Your task to perform on an android device: check google app version Image 0: 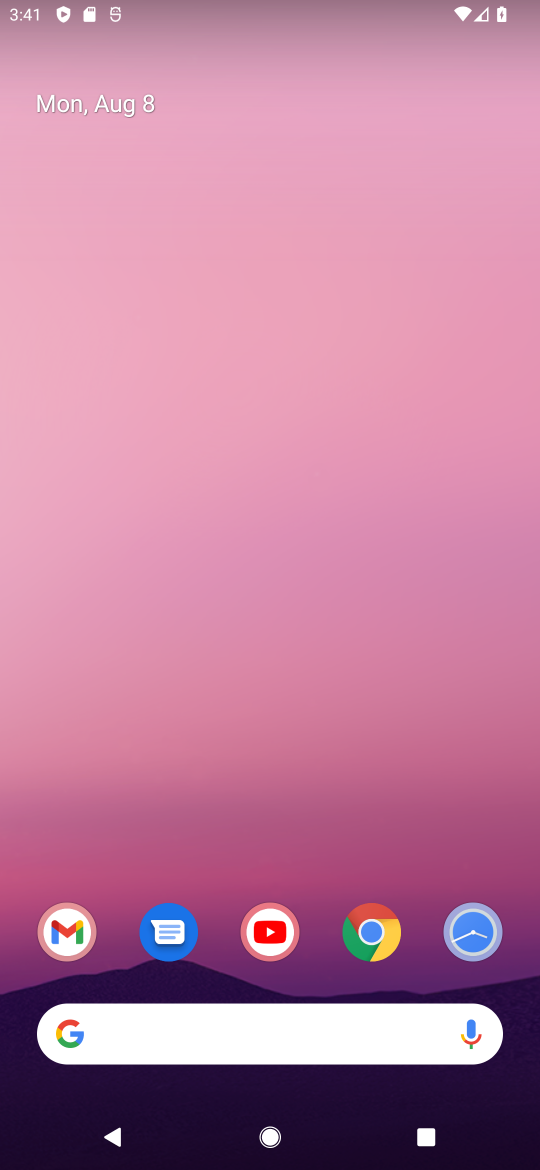
Step 0: drag from (210, 855) to (243, 365)
Your task to perform on an android device: check google app version Image 1: 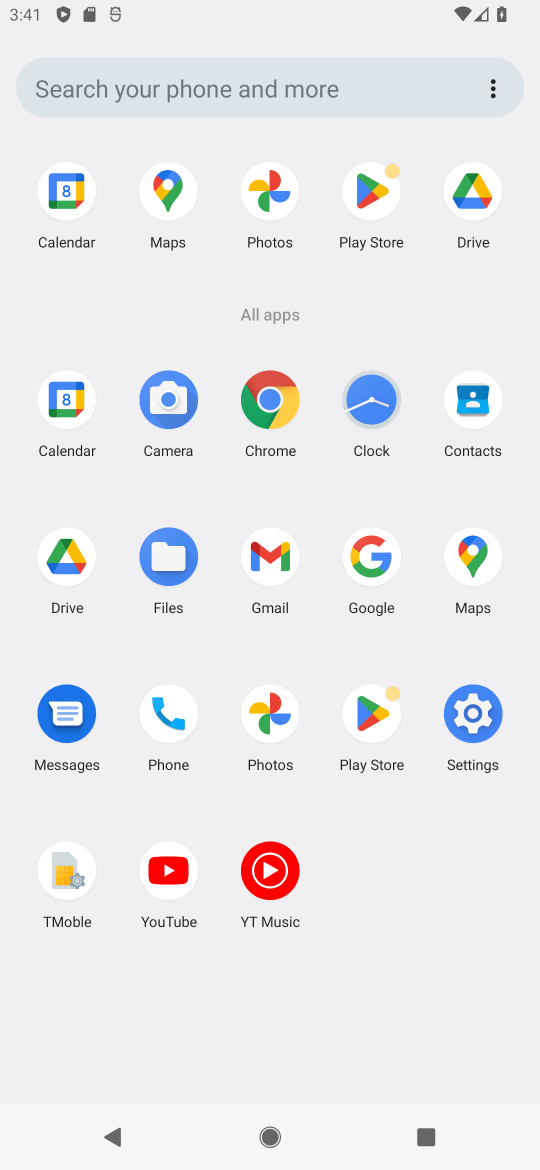
Step 1: click (380, 563)
Your task to perform on an android device: check google app version Image 2: 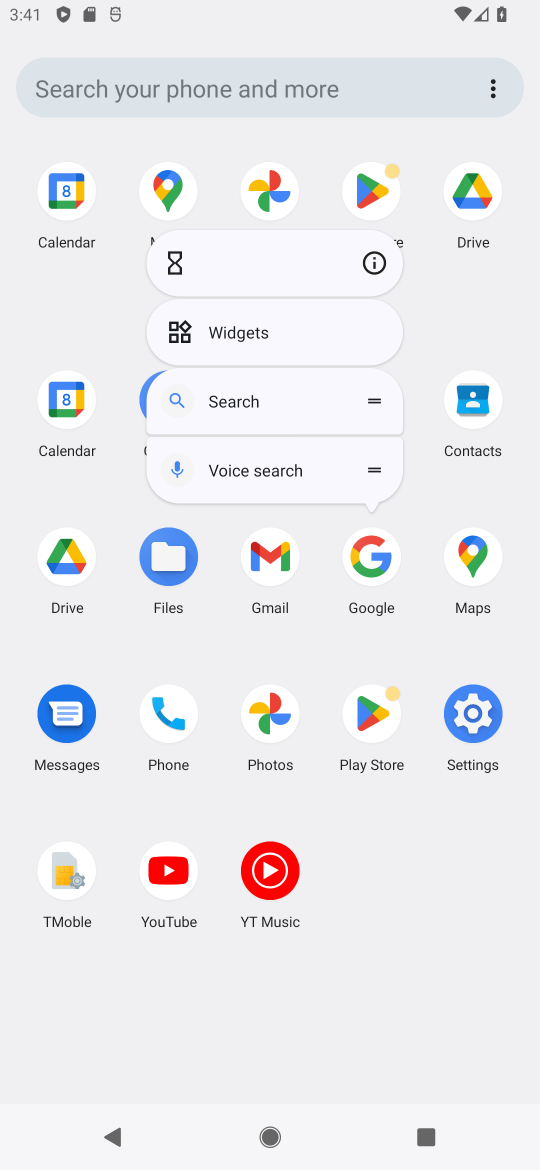
Step 2: click (373, 251)
Your task to perform on an android device: check google app version Image 3: 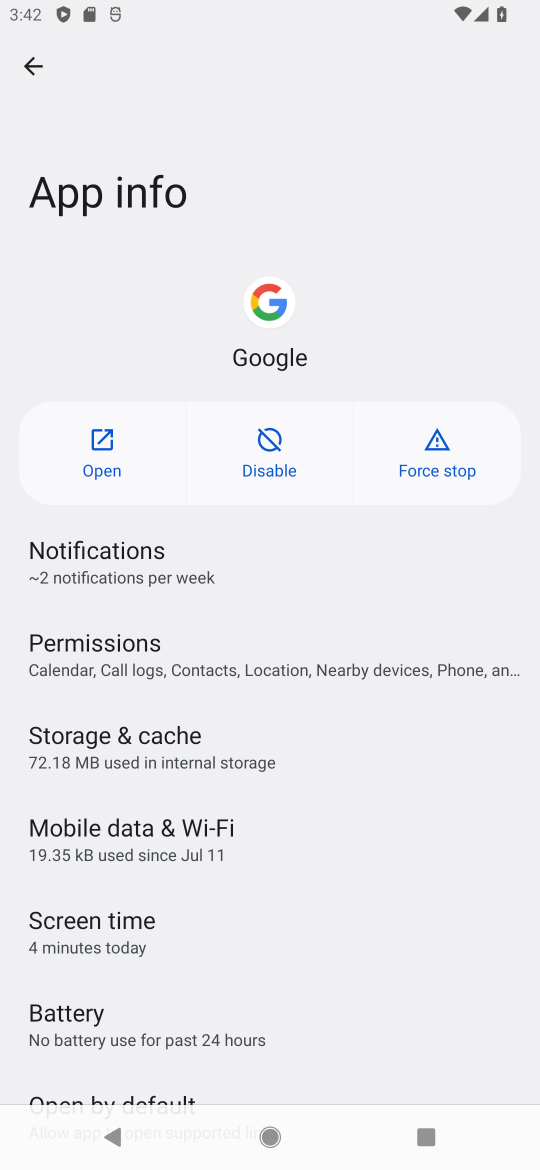
Step 3: task complete